Your task to perform on an android device: Open Chrome and go to settings Image 0: 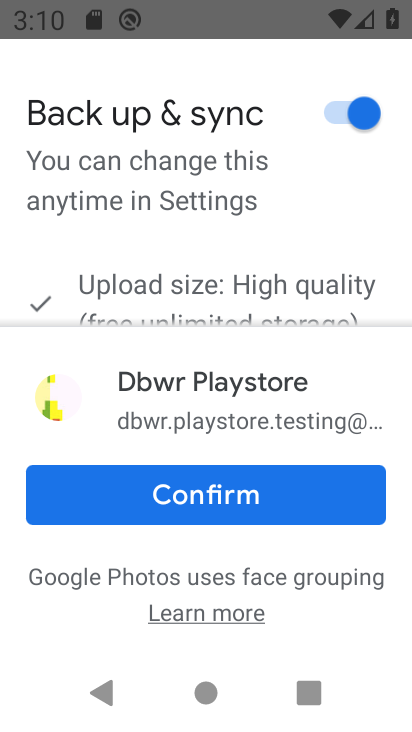
Step 0: press home button
Your task to perform on an android device: Open Chrome and go to settings Image 1: 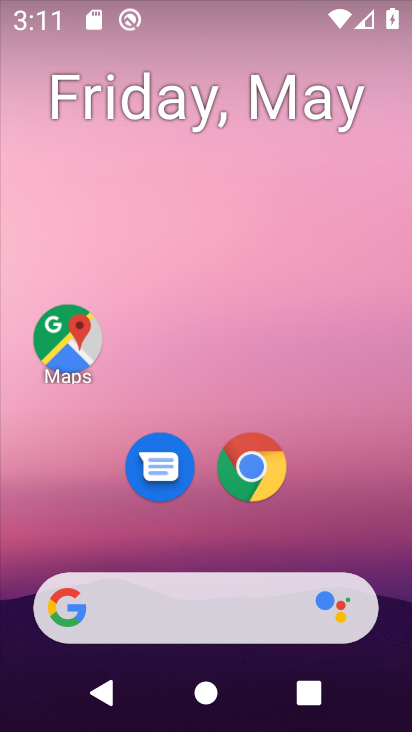
Step 1: click (249, 477)
Your task to perform on an android device: Open Chrome and go to settings Image 2: 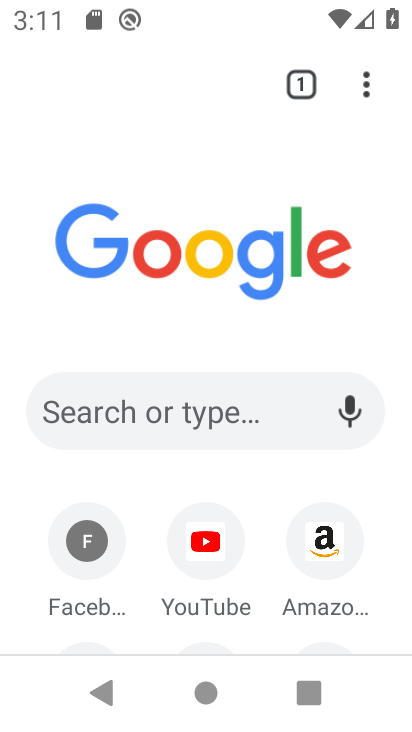
Step 2: click (373, 84)
Your task to perform on an android device: Open Chrome and go to settings Image 3: 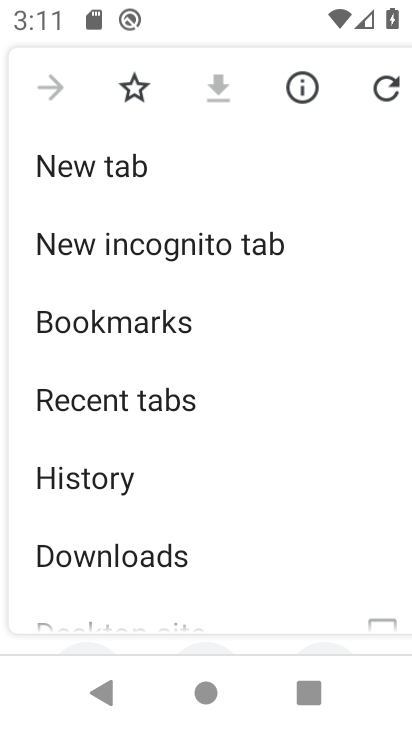
Step 3: drag from (265, 522) to (207, 209)
Your task to perform on an android device: Open Chrome and go to settings Image 4: 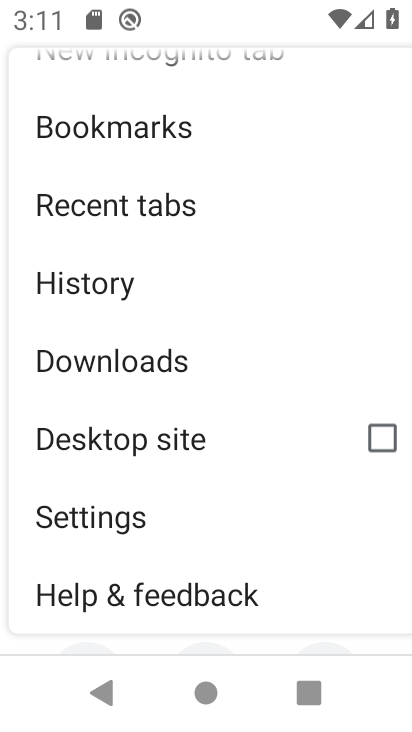
Step 4: click (152, 522)
Your task to perform on an android device: Open Chrome and go to settings Image 5: 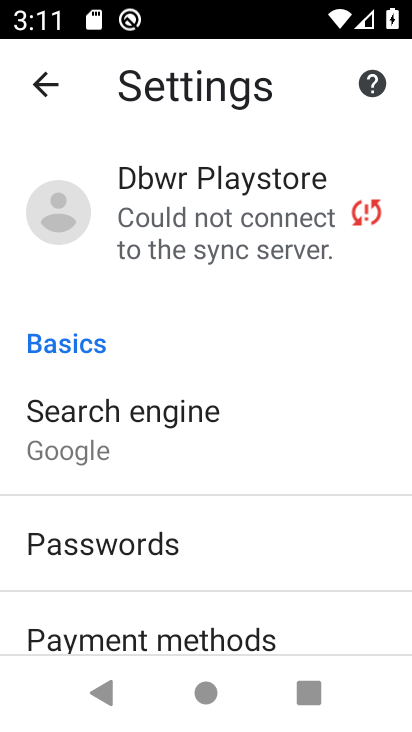
Step 5: task complete